Your task to perform on an android device: Go to privacy settings Image 0: 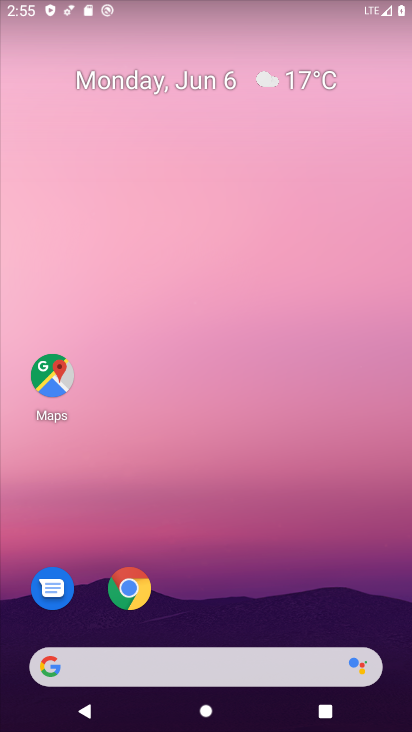
Step 0: drag from (200, 478) to (210, 112)
Your task to perform on an android device: Go to privacy settings Image 1: 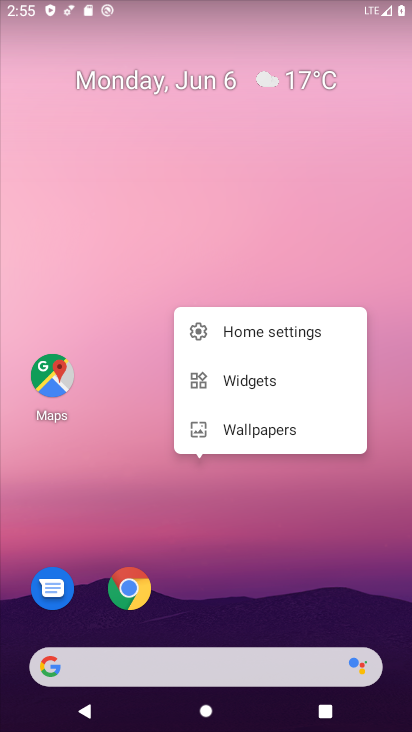
Step 1: drag from (199, 661) to (170, 236)
Your task to perform on an android device: Go to privacy settings Image 2: 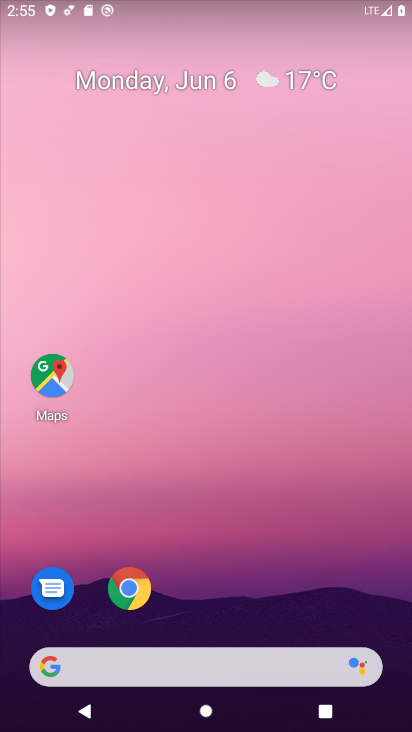
Step 2: drag from (276, 442) to (274, 160)
Your task to perform on an android device: Go to privacy settings Image 3: 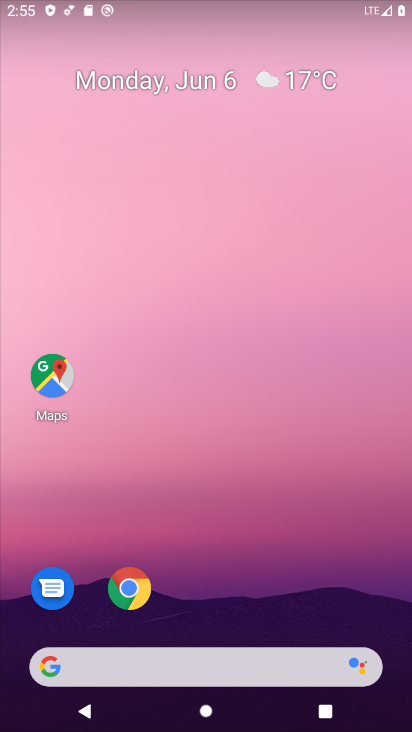
Step 3: drag from (234, 673) to (262, 8)
Your task to perform on an android device: Go to privacy settings Image 4: 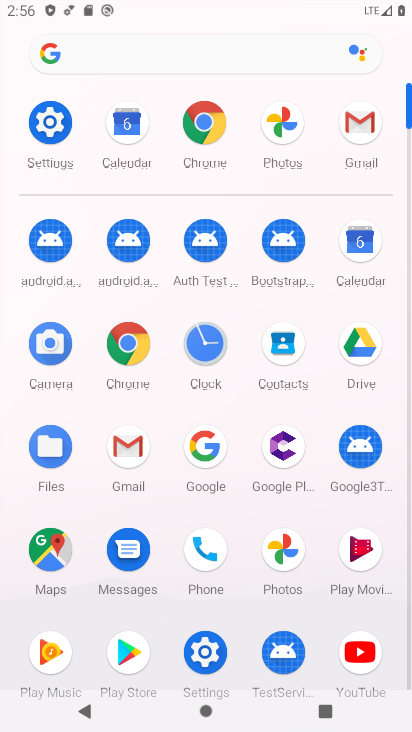
Step 4: click (58, 121)
Your task to perform on an android device: Go to privacy settings Image 5: 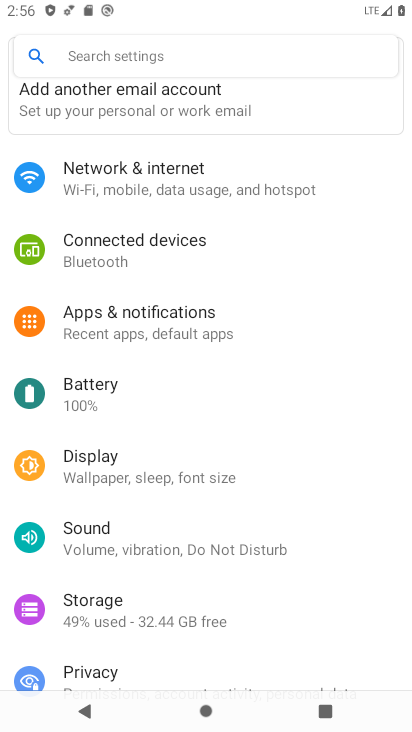
Step 5: drag from (199, 392) to (206, 39)
Your task to perform on an android device: Go to privacy settings Image 6: 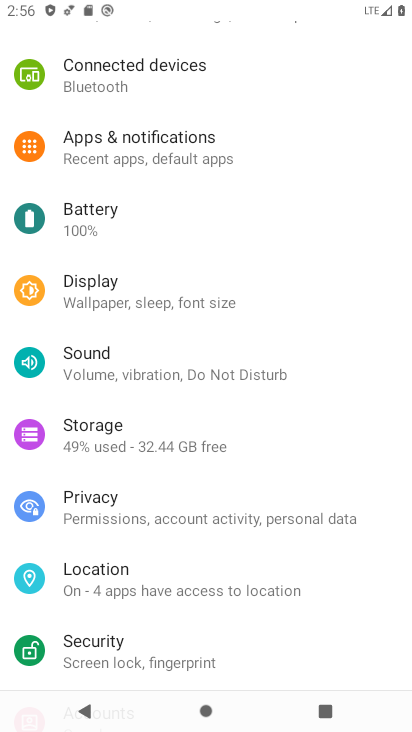
Step 6: click (104, 508)
Your task to perform on an android device: Go to privacy settings Image 7: 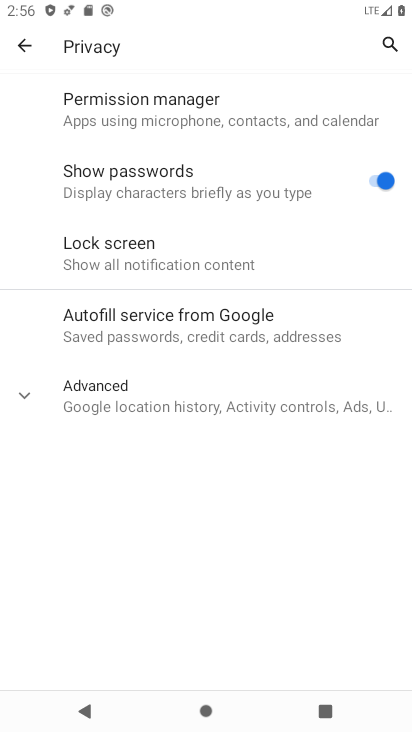
Step 7: task complete